Your task to perform on an android device: Set the phone to "Do not disturb". Image 0: 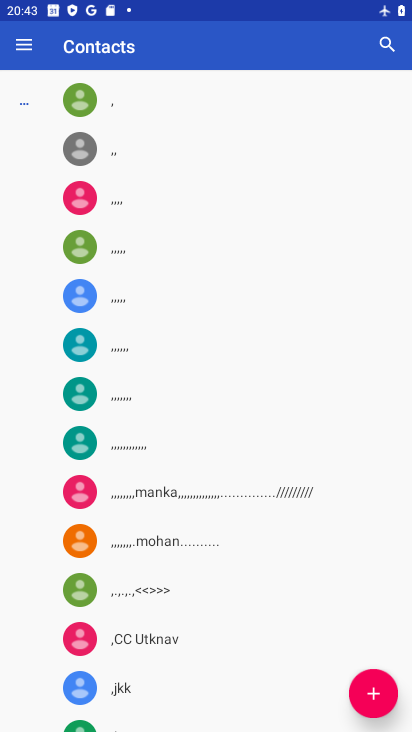
Step 0: press home button
Your task to perform on an android device: Set the phone to "Do not disturb". Image 1: 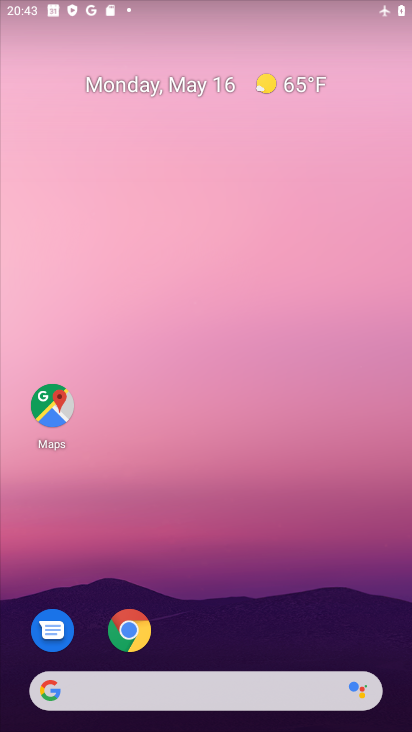
Step 1: drag from (222, 628) to (238, 157)
Your task to perform on an android device: Set the phone to "Do not disturb". Image 2: 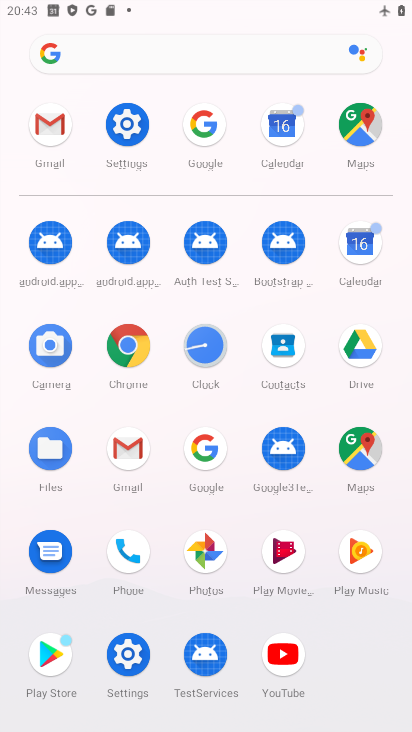
Step 2: click (116, 114)
Your task to perform on an android device: Set the phone to "Do not disturb". Image 3: 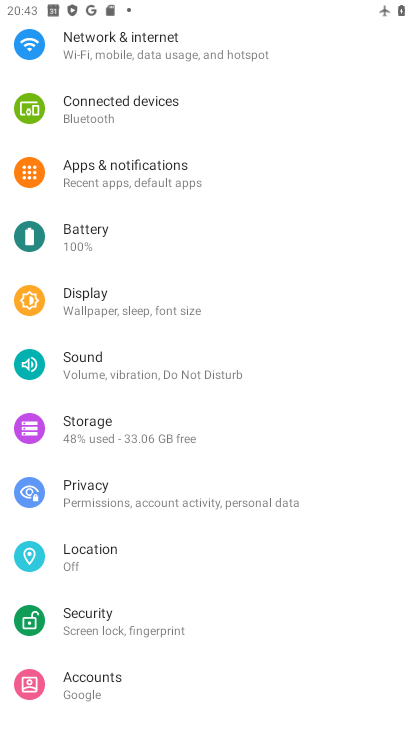
Step 3: click (114, 347)
Your task to perform on an android device: Set the phone to "Do not disturb". Image 4: 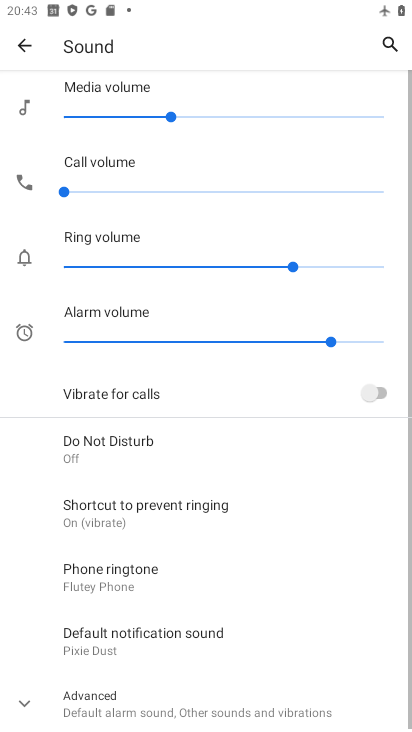
Step 4: drag from (123, 703) to (154, 492)
Your task to perform on an android device: Set the phone to "Do not disturb". Image 5: 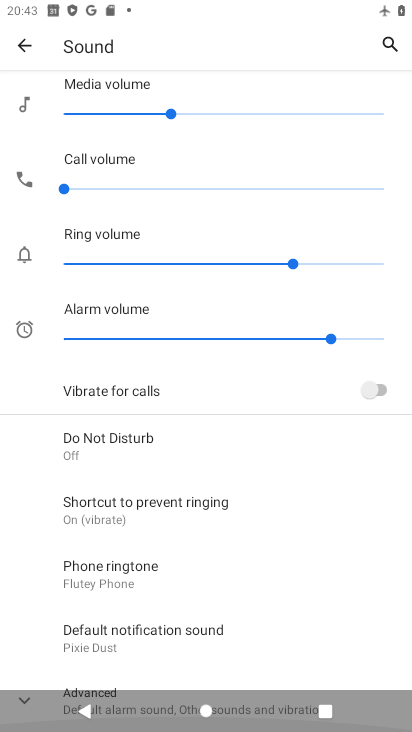
Step 5: click (112, 446)
Your task to perform on an android device: Set the phone to "Do not disturb". Image 6: 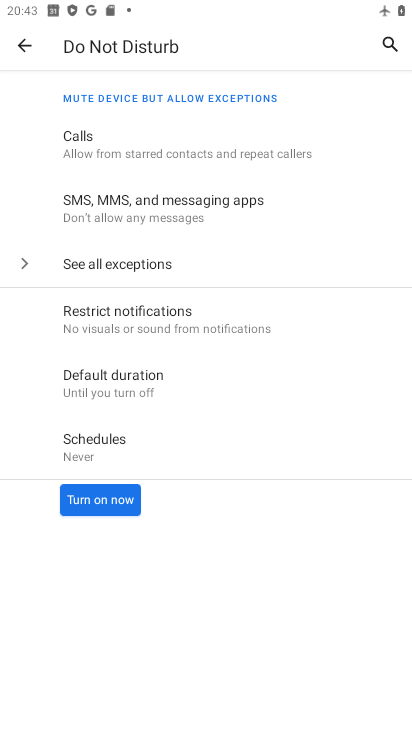
Step 6: click (94, 503)
Your task to perform on an android device: Set the phone to "Do not disturb". Image 7: 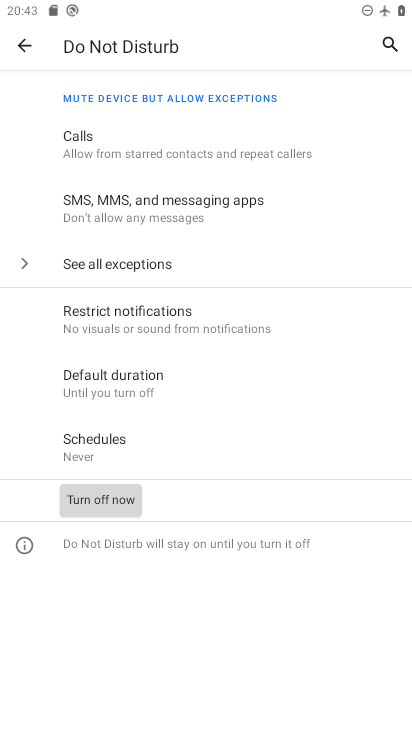
Step 7: task complete